Your task to perform on an android device: refresh tabs in the chrome app Image 0: 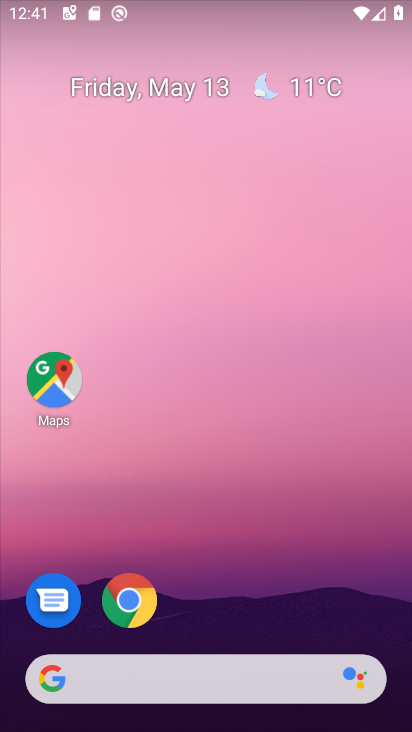
Step 0: click (140, 607)
Your task to perform on an android device: refresh tabs in the chrome app Image 1: 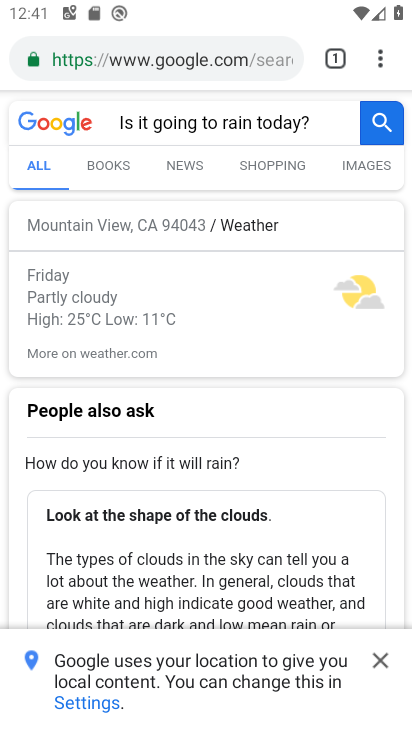
Step 1: click (380, 55)
Your task to perform on an android device: refresh tabs in the chrome app Image 2: 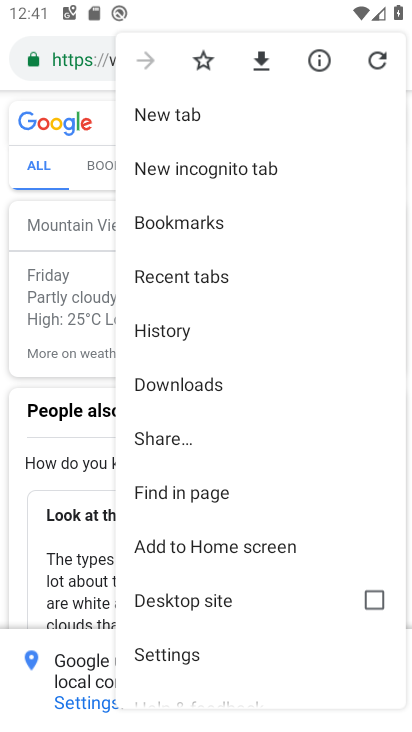
Step 2: click (378, 56)
Your task to perform on an android device: refresh tabs in the chrome app Image 3: 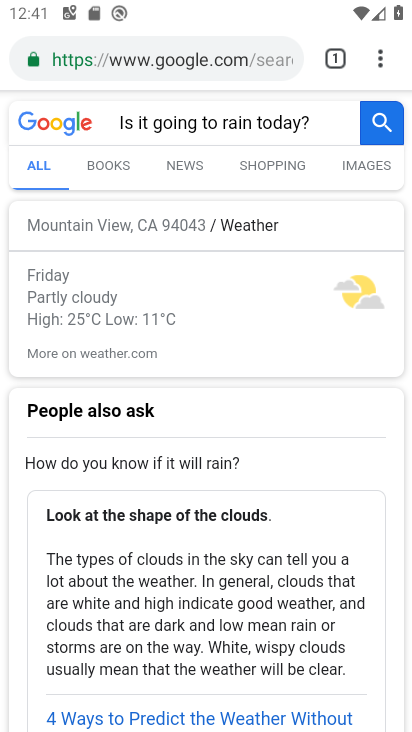
Step 3: task complete